Your task to perform on an android device: see creations saved in the google photos Image 0: 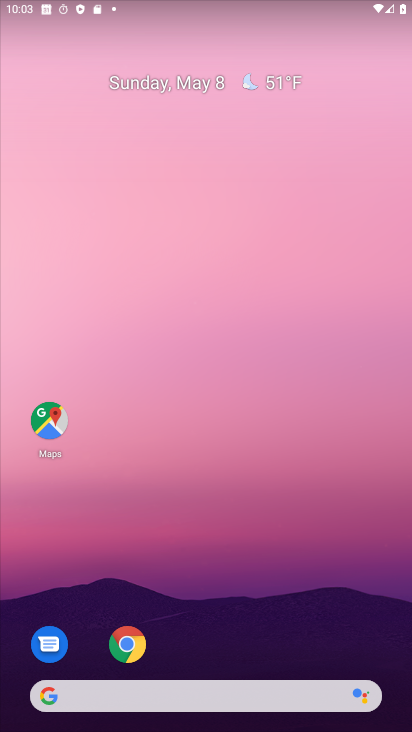
Step 0: drag from (241, 660) to (266, 158)
Your task to perform on an android device: see creations saved in the google photos Image 1: 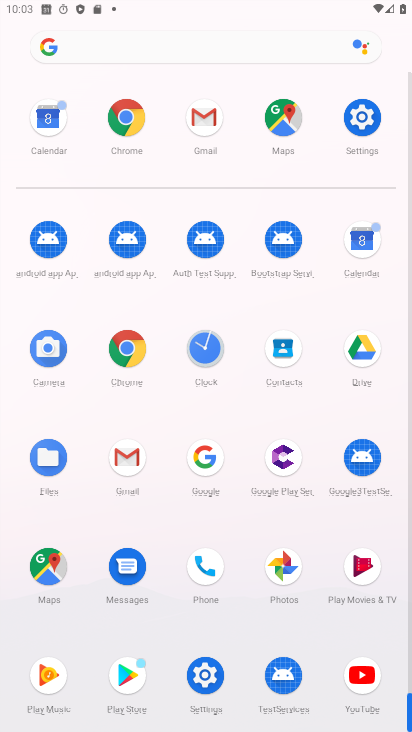
Step 1: click (273, 576)
Your task to perform on an android device: see creations saved in the google photos Image 2: 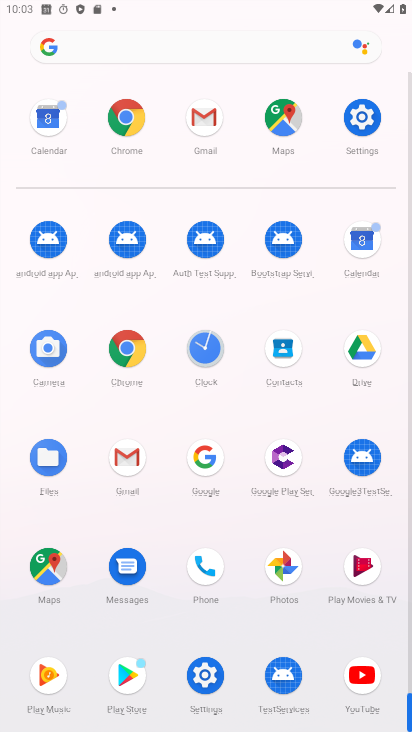
Step 2: click (270, 576)
Your task to perform on an android device: see creations saved in the google photos Image 3: 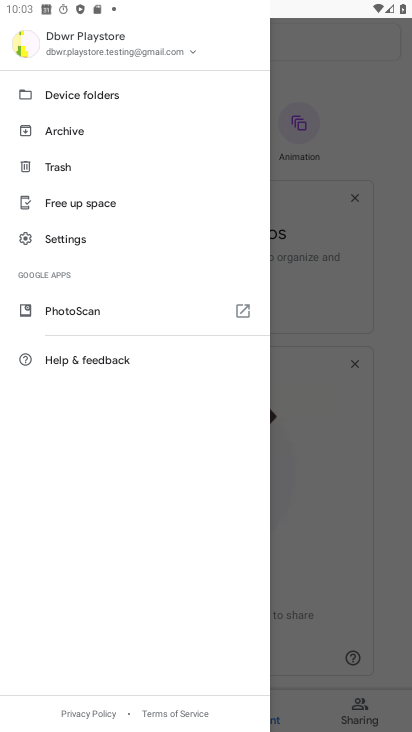
Step 3: click (85, 239)
Your task to perform on an android device: see creations saved in the google photos Image 4: 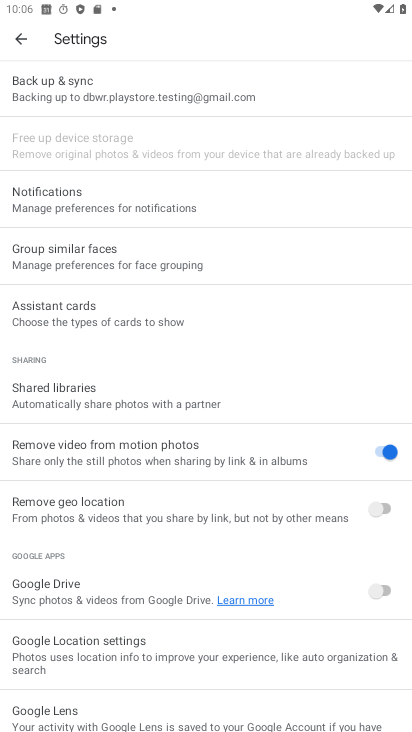
Step 4: drag from (134, 620) to (296, 144)
Your task to perform on an android device: see creations saved in the google photos Image 5: 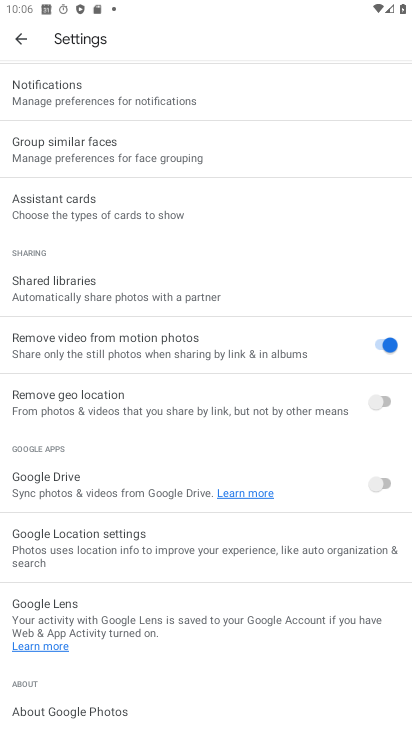
Step 5: drag from (236, 450) to (335, 234)
Your task to perform on an android device: see creations saved in the google photos Image 6: 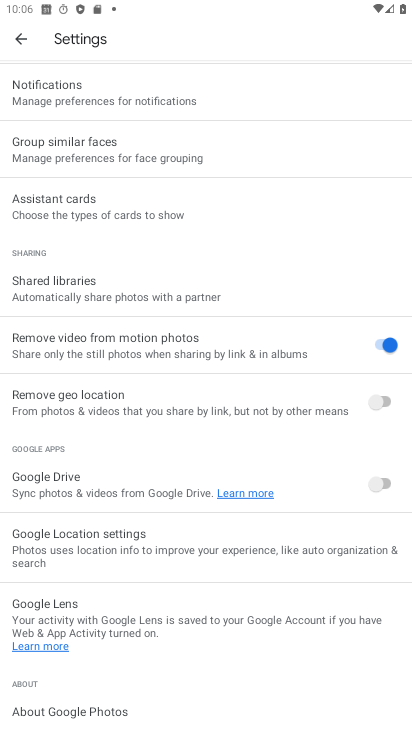
Step 6: click (17, 26)
Your task to perform on an android device: see creations saved in the google photos Image 7: 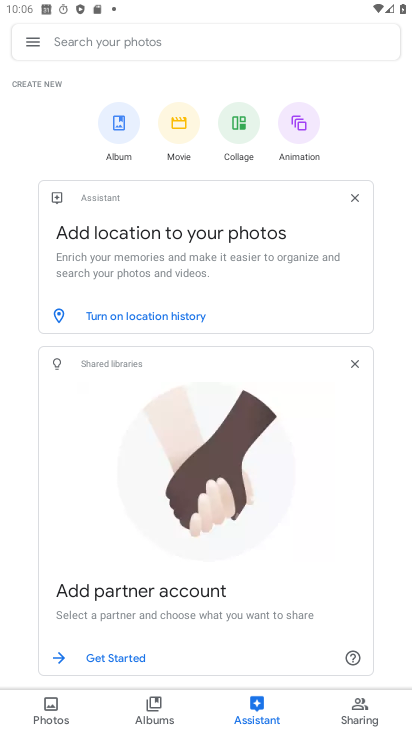
Step 7: click (149, 702)
Your task to perform on an android device: see creations saved in the google photos Image 8: 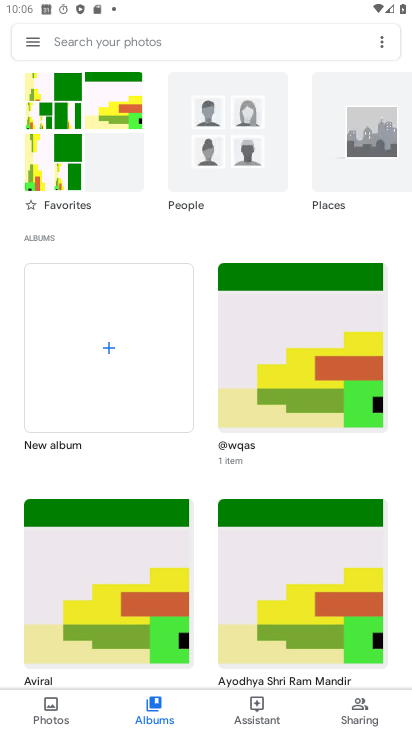
Step 8: click (328, 354)
Your task to perform on an android device: see creations saved in the google photos Image 9: 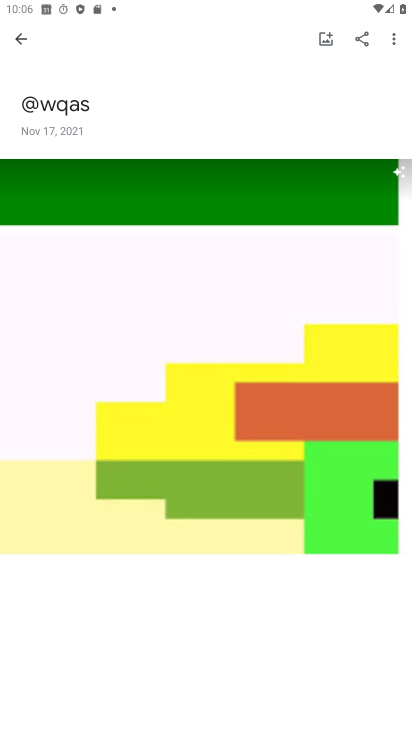
Step 9: task complete